Your task to perform on an android device: Open location settings Image 0: 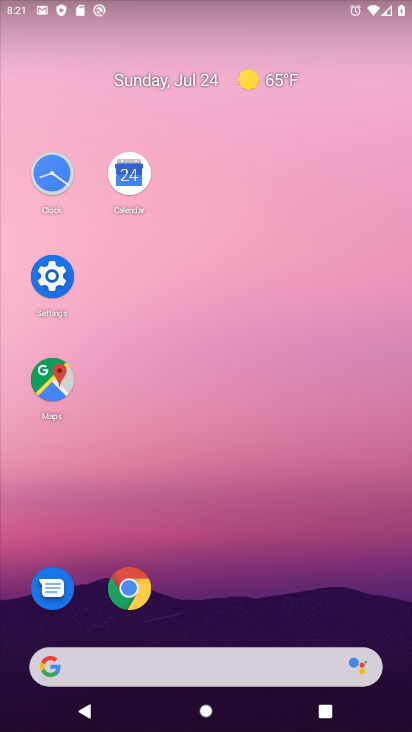
Step 0: click (51, 279)
Your task to perform on an android device: Open location settings Image 1: 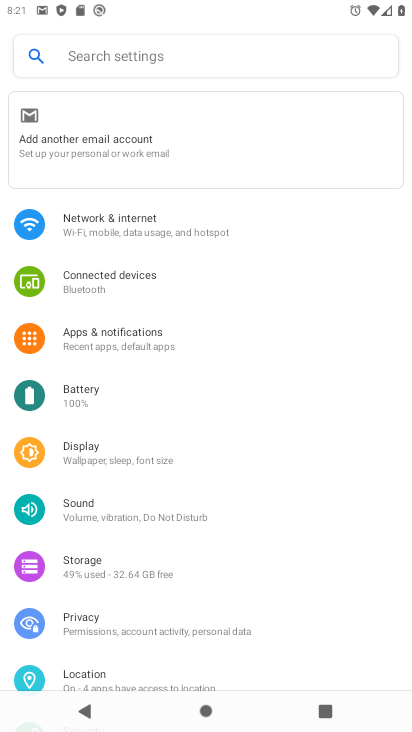
Step 1: click (177, 681)
Your task to perform on an android device: Open location settings Image 2: 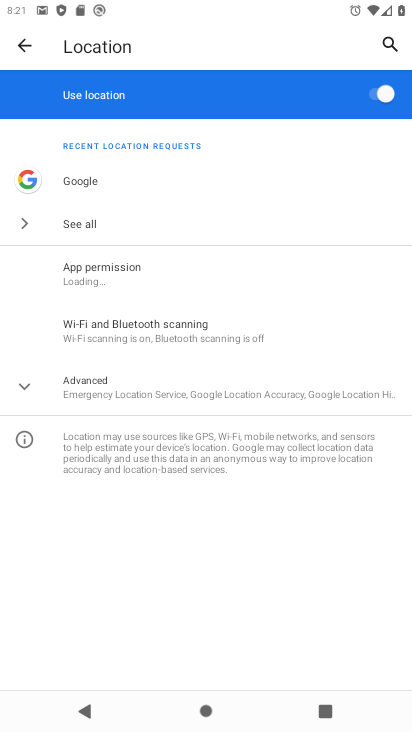
Step 2: task complete